Your task to perform on an android device: Go to ESPN.com Image 0: 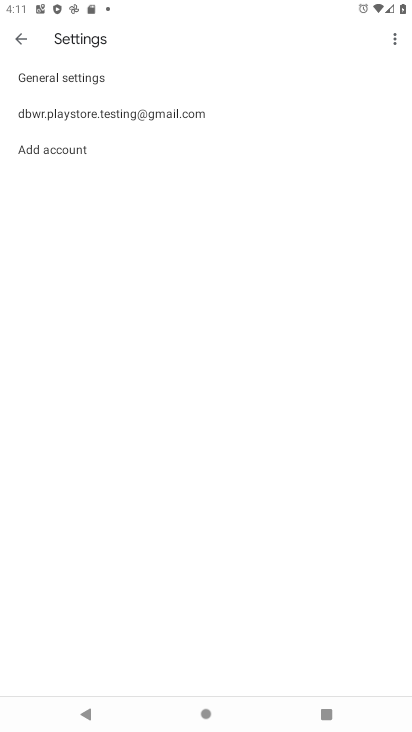
Step 0: press home button
Your task to perform on an android device: Go to ESPN.com Image 1: 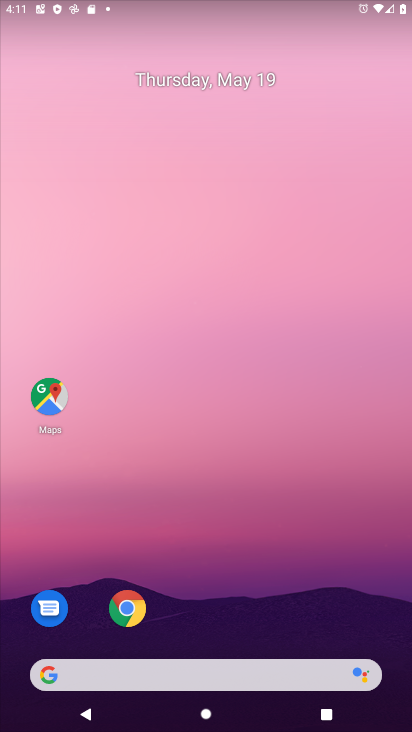
Step 1: click (132, 679)
Your task to perform on an android device: Go to ESPN.com Image 2: 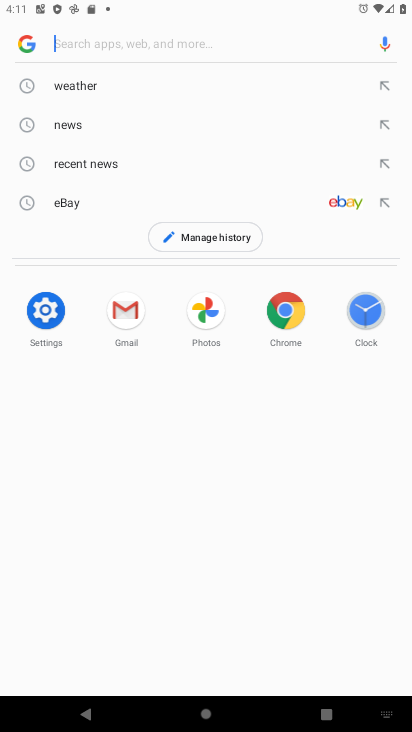
Step 2: type "espn.com"
Your task to perform on an android device: Go to ESPN.com Image 3: 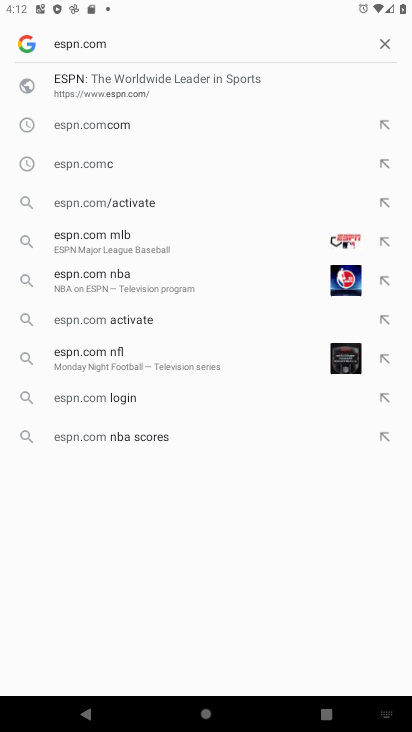
Step 3: click (158, 88)
Your task to perform on an android device: Go to ESPN.com Image 4: 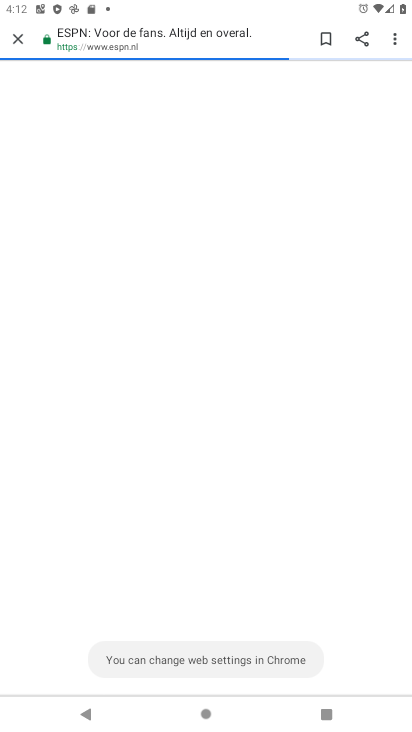
Step 4: task complete